Your task to perform on an android device: clear history in the chrome app Image 0: 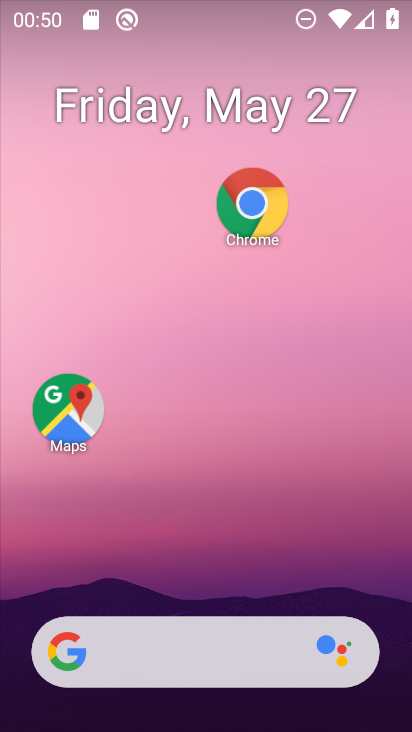
Step 0: drag from (208, 553) to (176, 38)
Your task to perform on an android device: clear history in the chrome app Image 1: 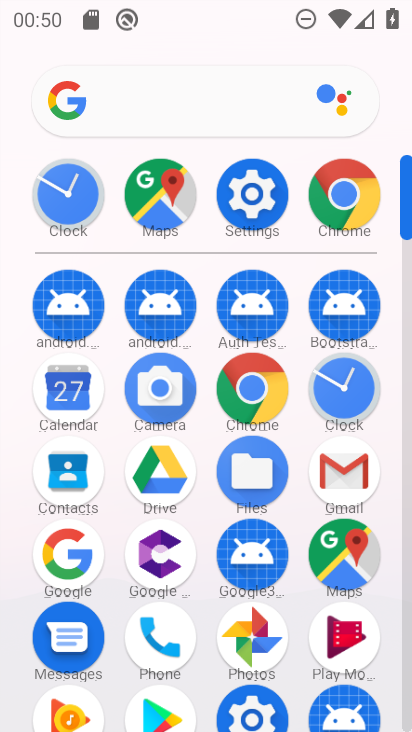
Step 1: click (237, 382)
Your task to perform on an android device: clear history in the chrome app Image 2: 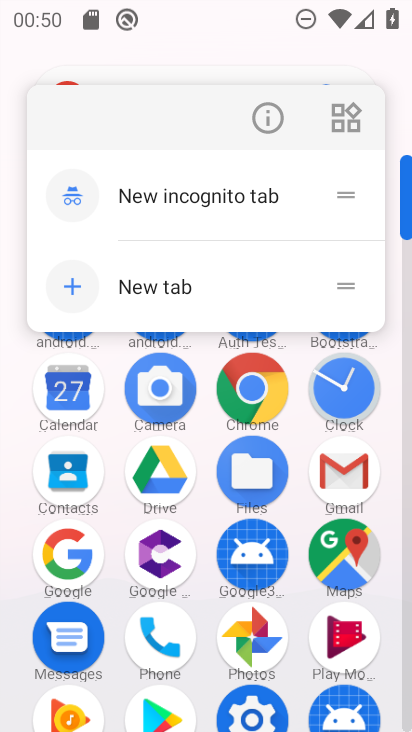
Step 2: click (257, 113)
Your task to perform on an android device: clear history in the chrome app Image 3: 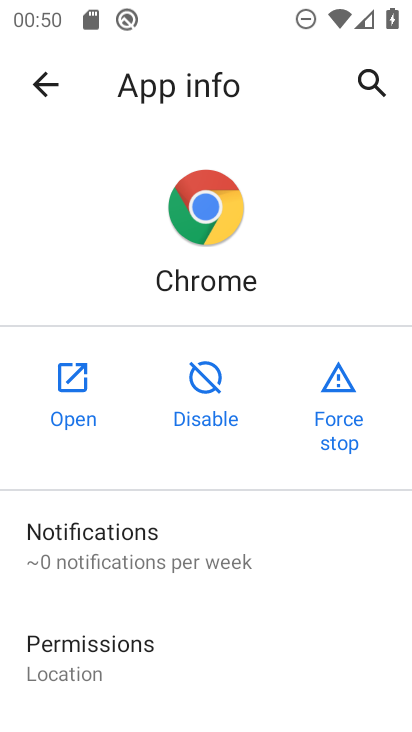
Step 3: click (71, 359)
Your task to perform on an android device: clear history in the chrome app Image 4: 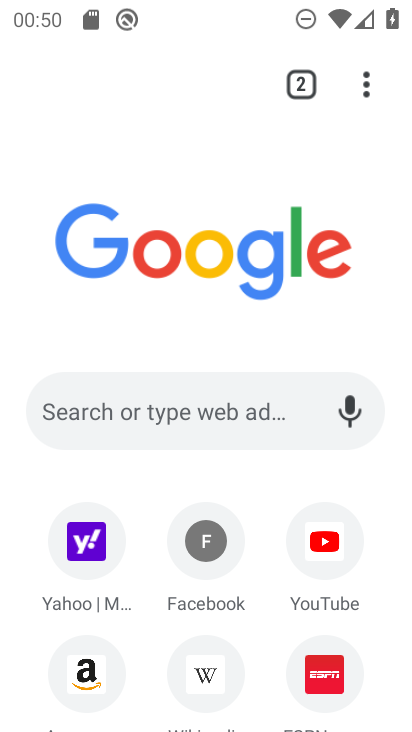
Step 4: drag from (369, 81) to (184, 472)
Your task to perform on an android device: clear history in the chrome app Image 5: 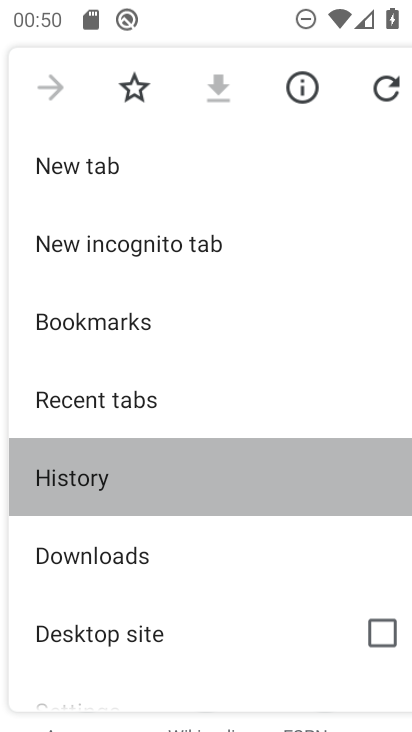
Step 5: click (184, 472)
Your task to perform on an android device: clear history in the chrome app Image 6: 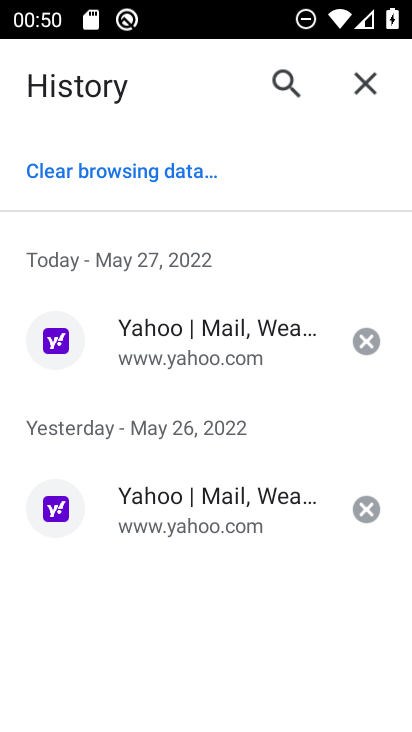
Step 6: click (82, 174)
Your task to perform on an android device: clear history in the chrome app Image 7: 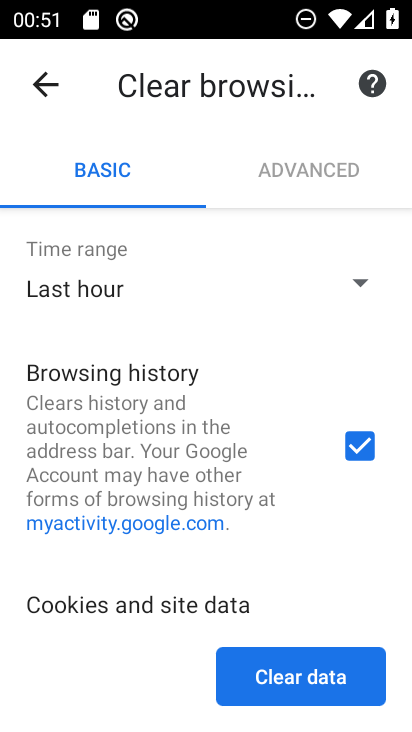
Step 7: click (365, 284)
Your task to perform on an android device: clear history in the chrome app Image 8: 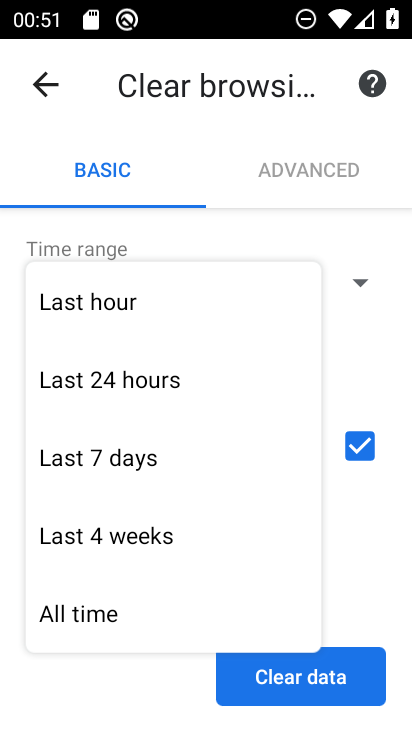
Step 8: click (122, 609)
Your task to perform on an android device: clear history in the chrome app Image 9: 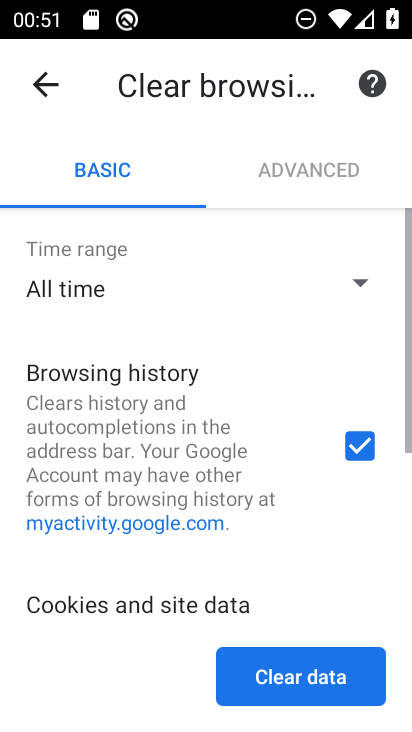
Step 9: click (281, 662)
Your task to perform on an android device: clear history in the chrome app Image 10: 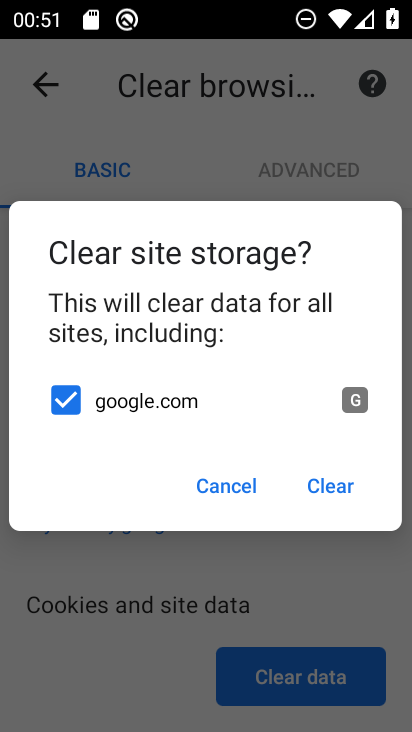
Step 10: click (312, 469)
Your task to perform on an android device: clear history in the chrome app Image 11: 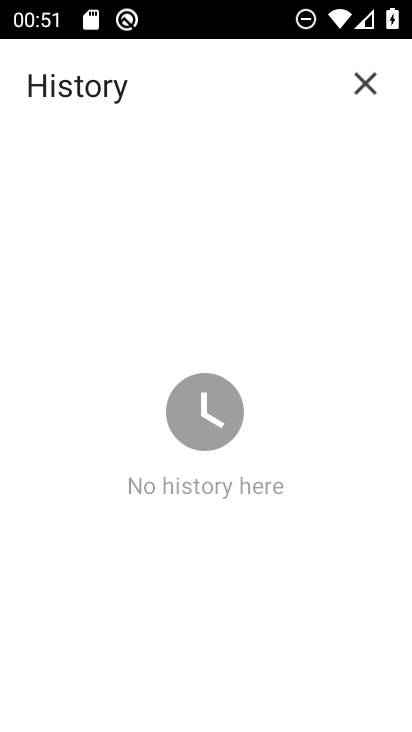
Step 11: task complete